Your task to perform on an android device: manage bookmarks in the chrome app Image 0: 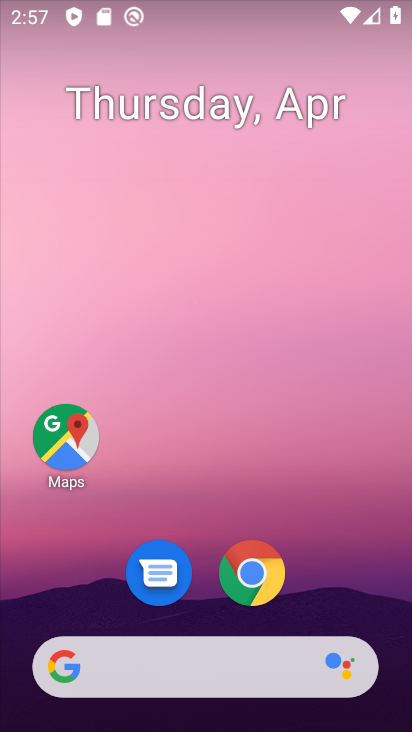
Step 0: drag from (346, 573) to (310, 0)
Your task to perform on an android device: manage bookmarks in the chrome app Image 1: 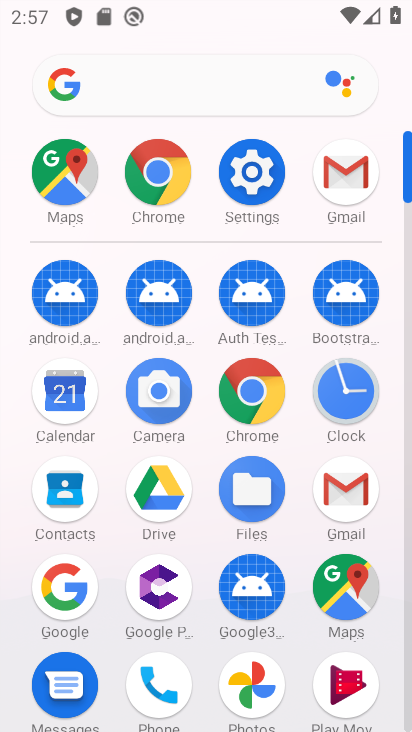
Step 1: click (257, 399)
Your task to perform on an android device: manage bookmarks in the chrome app Image 2: 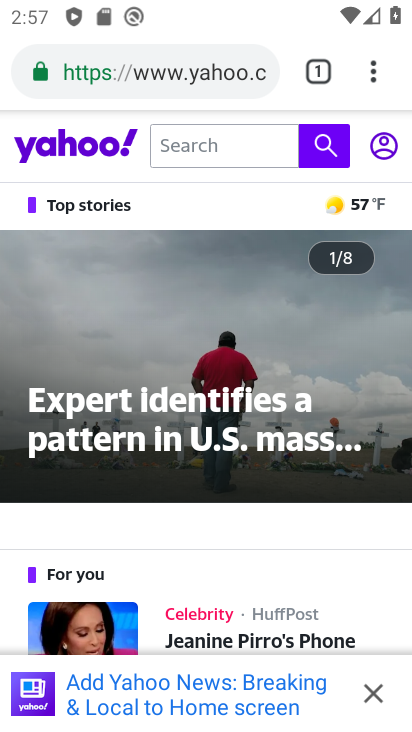
Step 2: press back button
Your task to perform on an android device: manage bookmarks in the chrome app Image 3: 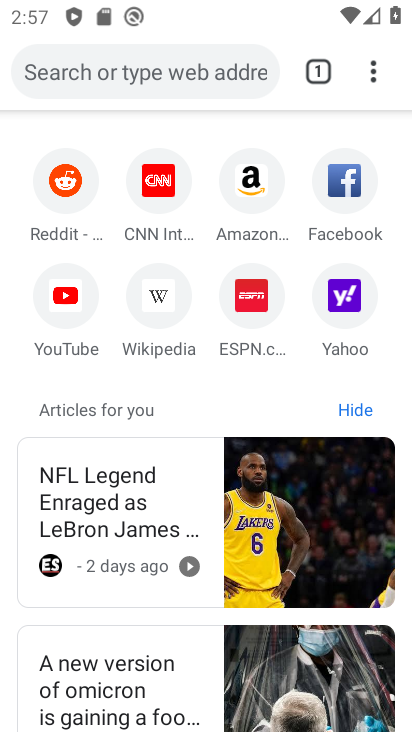
Step 3: click (371, 74)
Your task to perform on an android device: manage bookmarks in the chrome app Image 4: 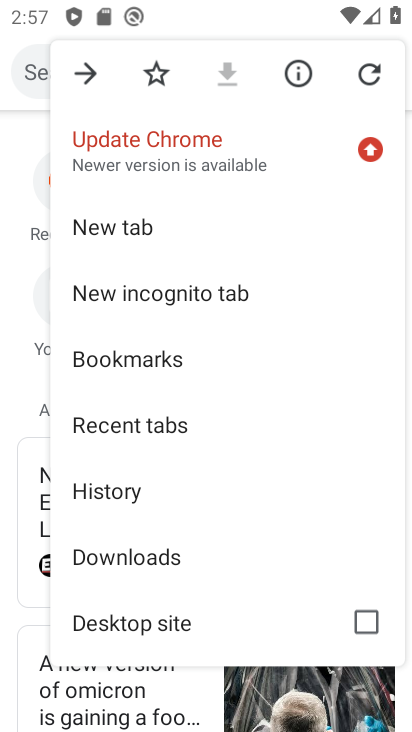
Step 4: click (196, 366)
Your task to perform on an android device: manage bookmarks in the chrome app Image 5: 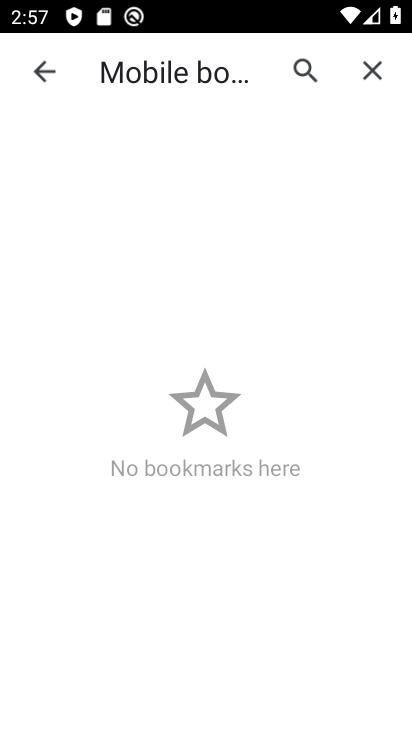
Step 5: task complete